Your task to perform on an android device: turn on the 24-hour format for clock Image 0: 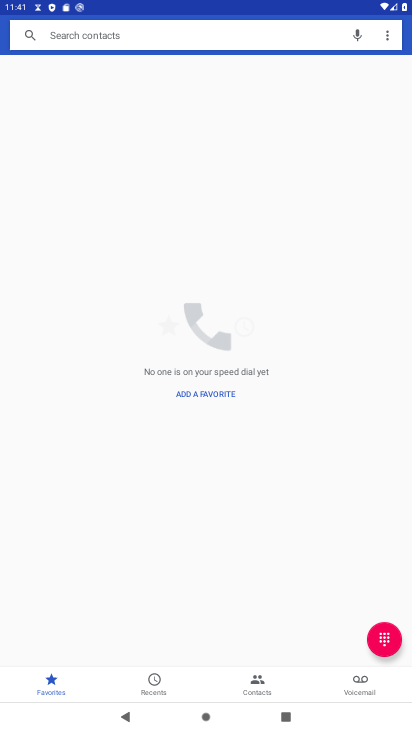
Step 0: press home button
Your task to perform on an android device: turn on the 24-hour format for clock Image 1: 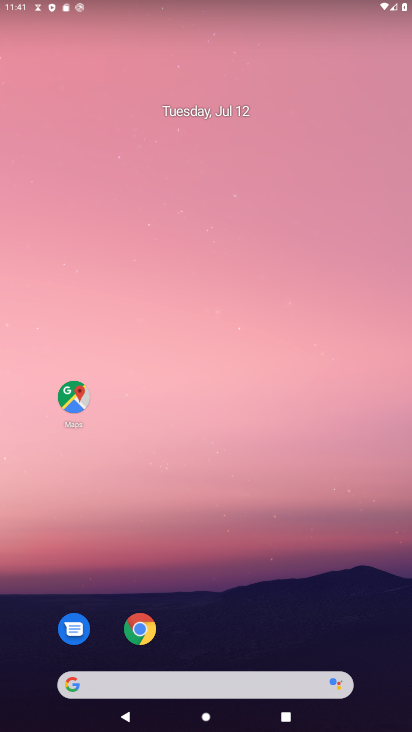
Step 1: drag from (207, 529) to (268, 10)
Your task to perform on an android device: turn on the 24-hour format for clock Image 2: 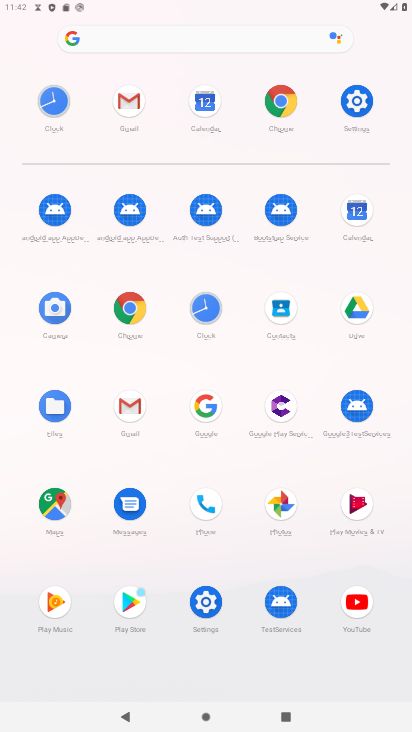
Step 2: click (201, 312)
Your task to perform on an android device: turn on the 24-hour format for clock Image 3: 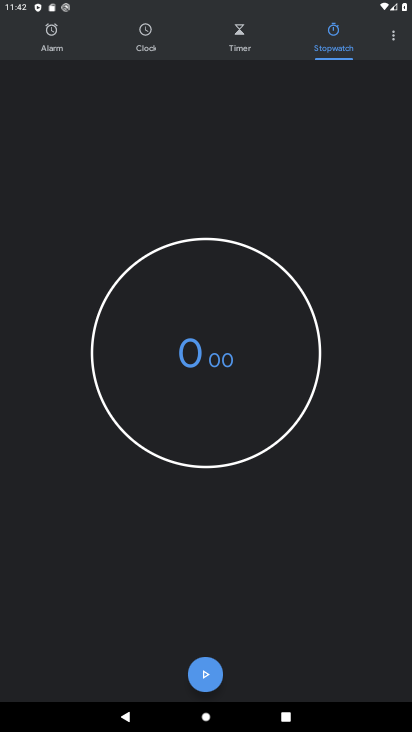
Step 3: click (394, 37)
Your task to perform on an android device: turn on the 24-hour format for clock Image 4: 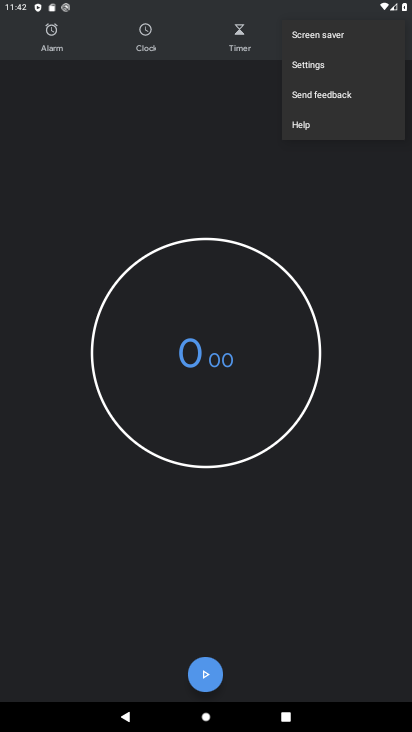
Step 4: click (326, 72)
Your task to perform on an android device: turn on the 24-hour format for clock Image 5: 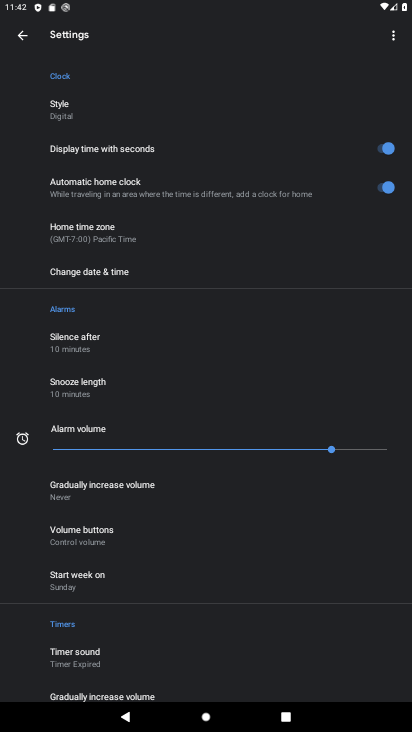
Step 5: task complete